Your task to perform on an android device: turn off javascript in the chrome app Image 0: 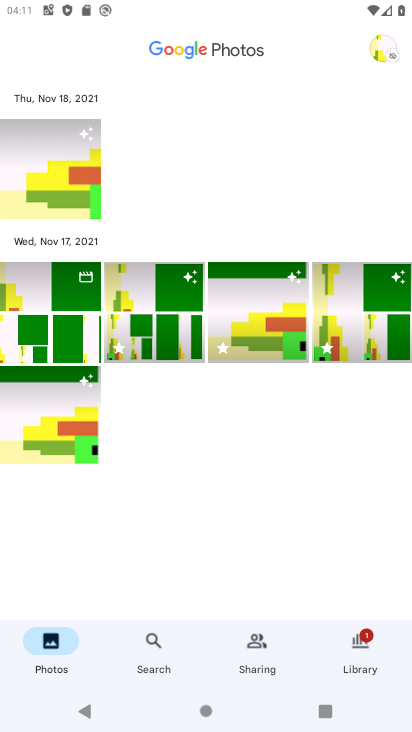
Step 0: press home button
Your task to perform on an android device: turn off javascript in the chrome app Image 1: 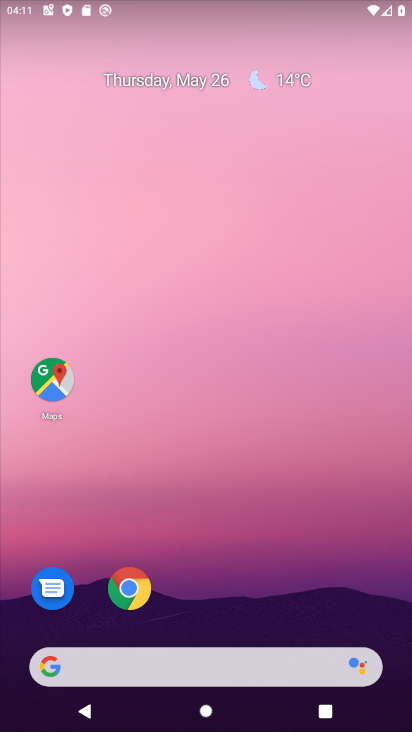
Step 1: drag from (341, 618) to (341, 203)
Your task to perform on an android device: turn off javascript in the chrome app Image 2: 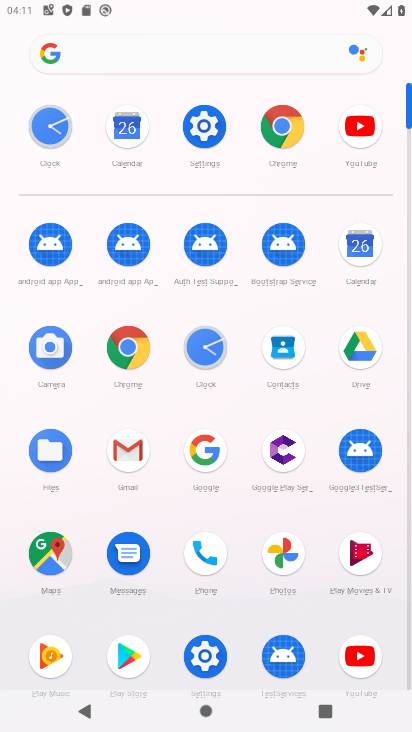
Step 2: click (205, 145)
Your task to perform on an android device: turn off javascript in the chrome app Image 3: 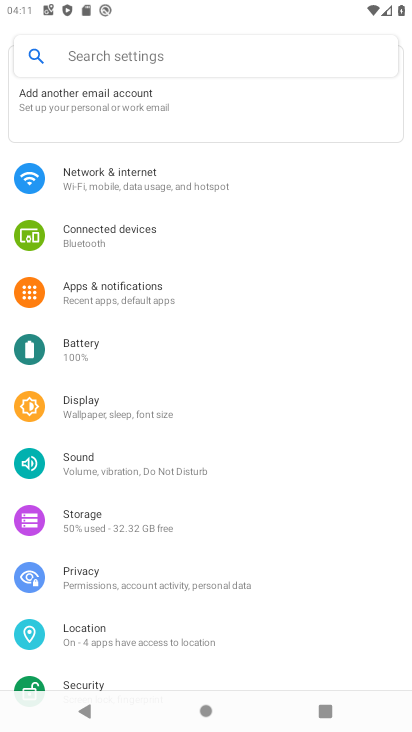
Step 3: drag from (193, 569) to (234, 317)
Your task to perform on an android device: turn off javascript in the chrome app Image 4: 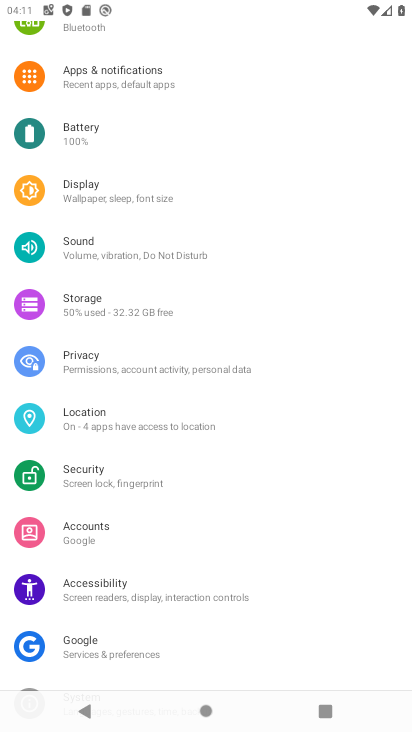
Step 4: press home button
Your task to perform on an android device: turn off javascript in the chrome app Image 5: 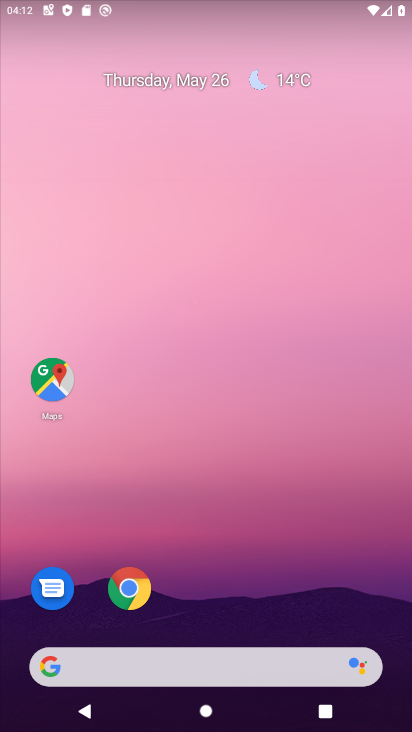
Step 5: drag from (231, 593) to (291, 99)
Your task to perform on an android device: turn off javascript in the chrome app Image 6: 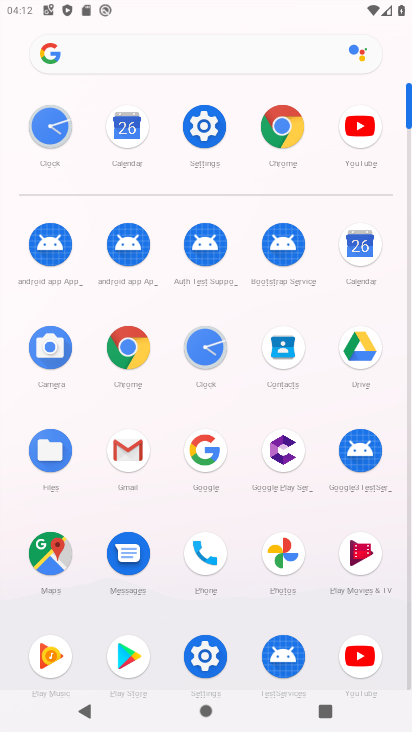
Step 6: click (278, 148)
Your task to perform on an android device: turn off javascript in the chrome app Image 7: 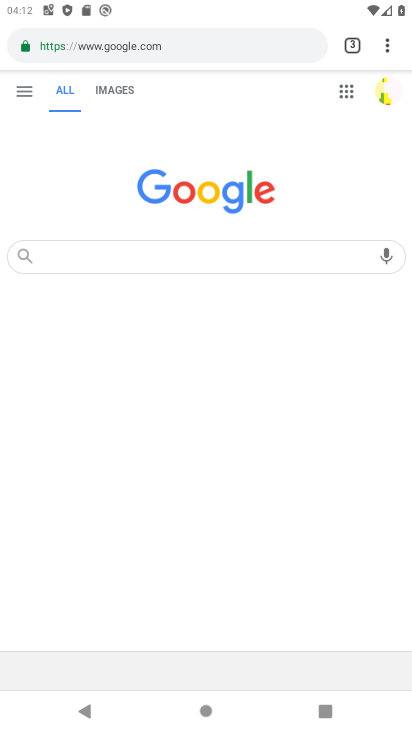
Step 7: click (395, 57)
Your task to perform on an android device: turn off javascript in the chrome app Image 8: 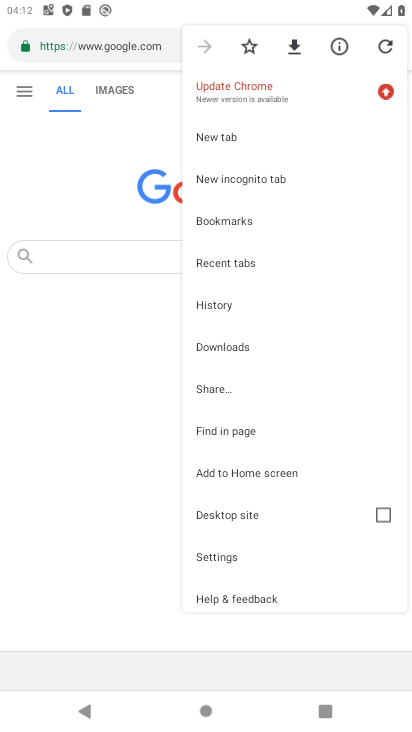
Step 8: click (231, 552)
Your task to perform on an android device: turn off javascript in the chrome app Image 9: 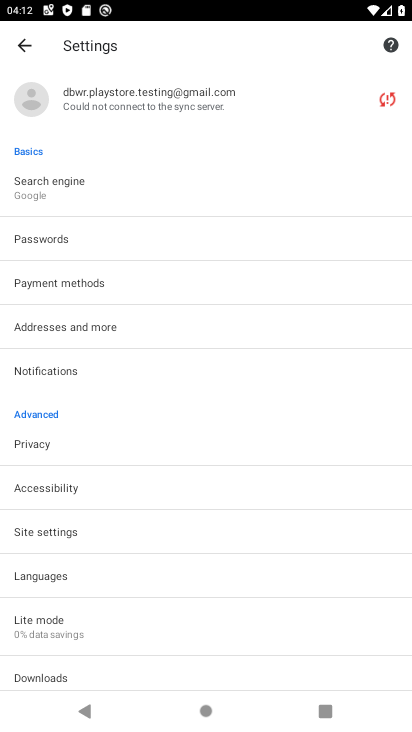
Step 9: click (177, 544)
Your task to perform on an android device: turn off javascript in the chrome app Image 10: 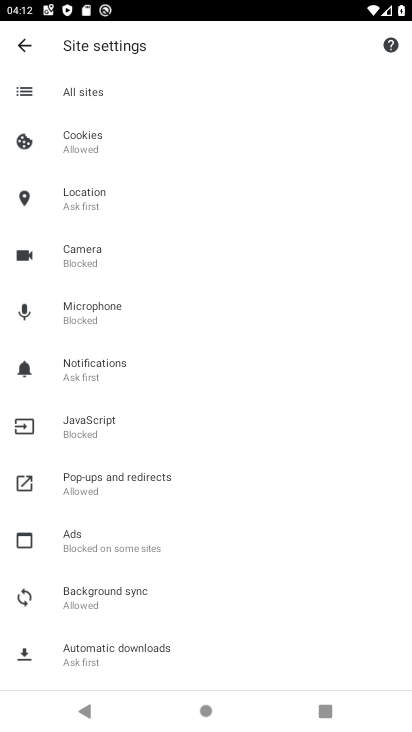
Step 10: click (154, 419)
Your task to perform on an android device: turn off javascript in the chrome app Image 11: 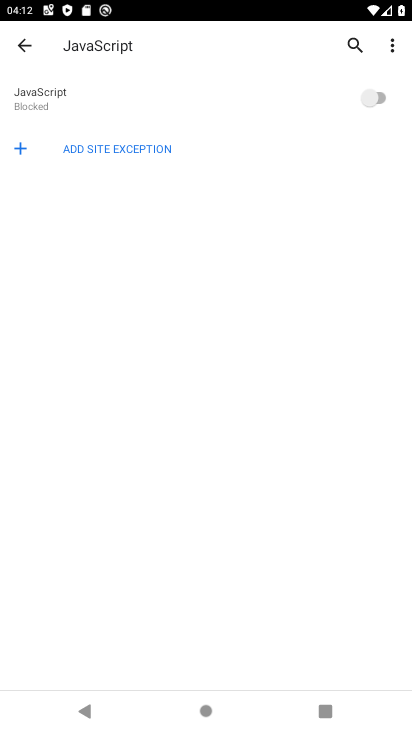
Step 11: click (388, 98)
Your task to perform on an android device: turn off javascript in the chrome app Image 12: 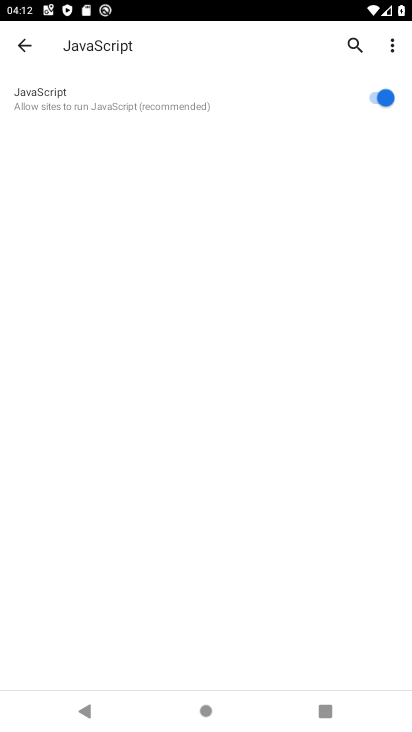
Step 12: task complete